Your task to perform on an android device: Go to calendar. Show me events next week Image 0: 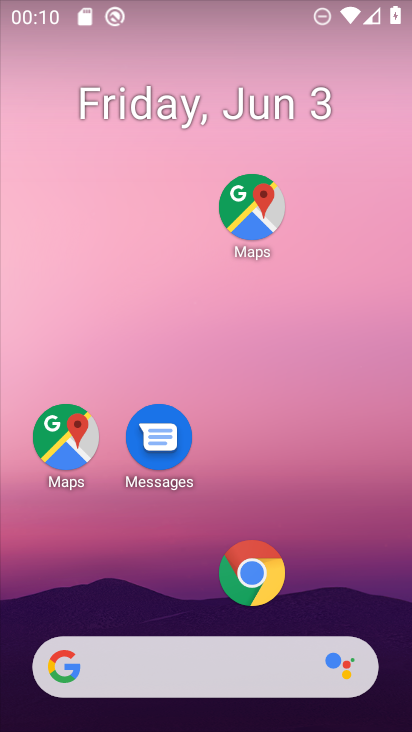
Step 0: click (250, 99)
Your task to perform on an android device: Go to calendar. Show me events next week Image 1: 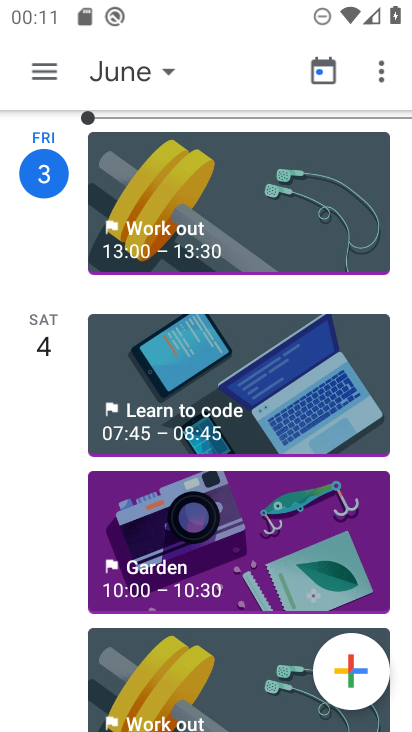
Step 1: click (38, 63)
Your task to perform on an android device: Go to calendar. Show me events next week Image 2: 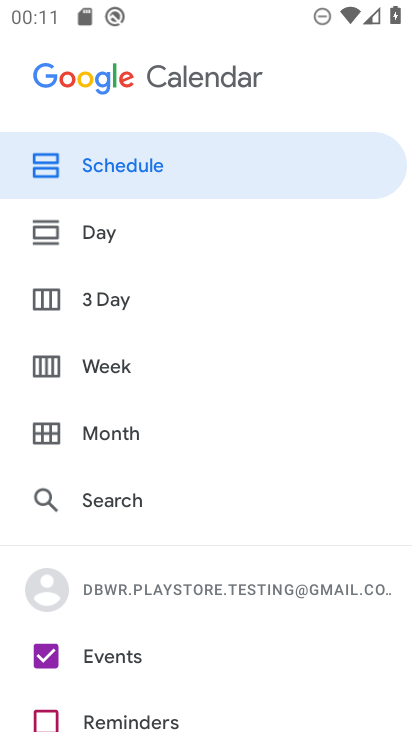
Step 2: click (107, 374)
Your task to perform on an android device: Go to calendar. Show me events next week Image 3: 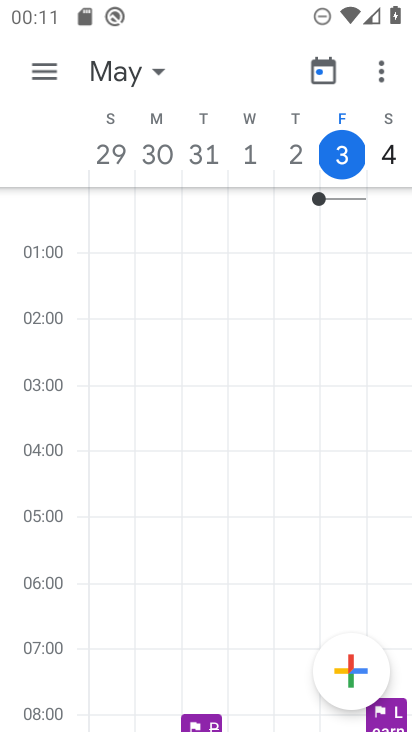
Step 3: click (157, 77)
Your task to perform on an android device: Go to calendar. Show me events next week Image 4: 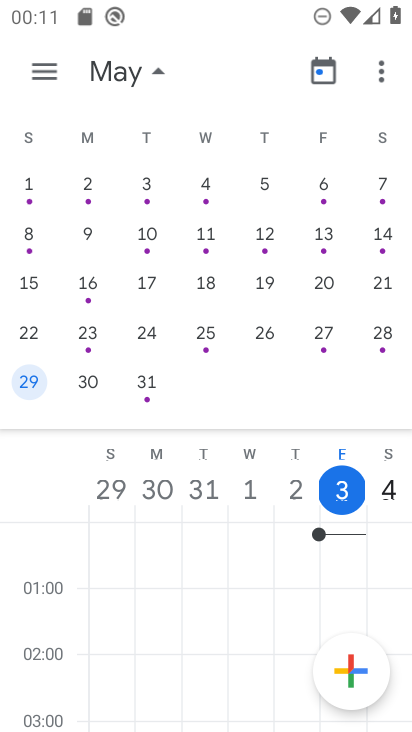
Step 4: drag from (383, 386) to (29, 325)
Your task to perform on an android device: Go to calendar. Show me events next week Image 5: 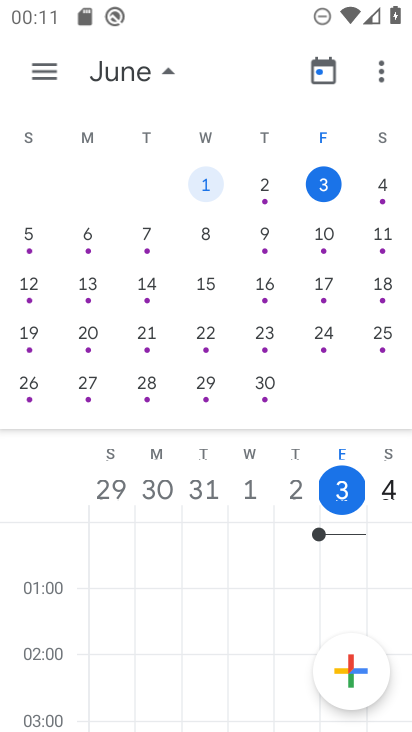
Step 5: click (206, 232)
Your task to perform on an android device: Go to calendar. Show me events next week Image 6: 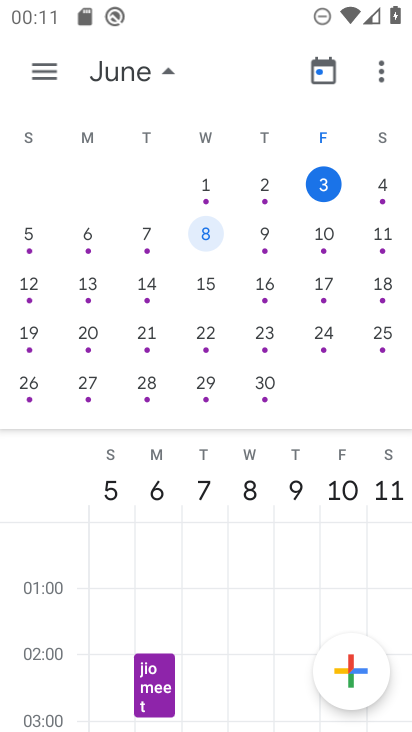
Step 6: task complete